Your task to perform on an android device: set default search engine in the chrome app Image 0: 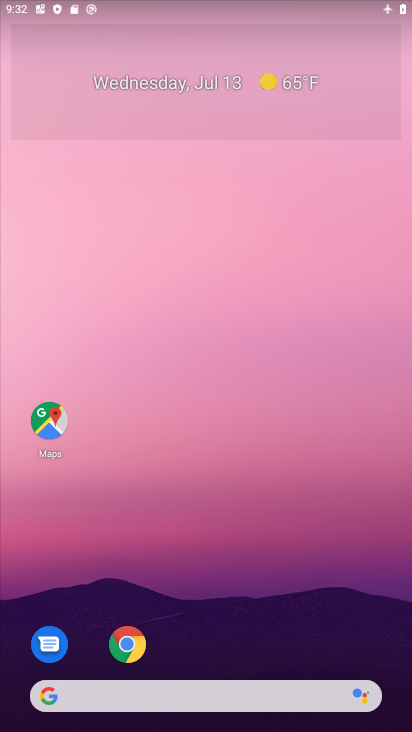
Step 0: drag from (292, 585) to (182, 142)
Your task to perform on an android device: set default search engine in the chrome app Image 1: 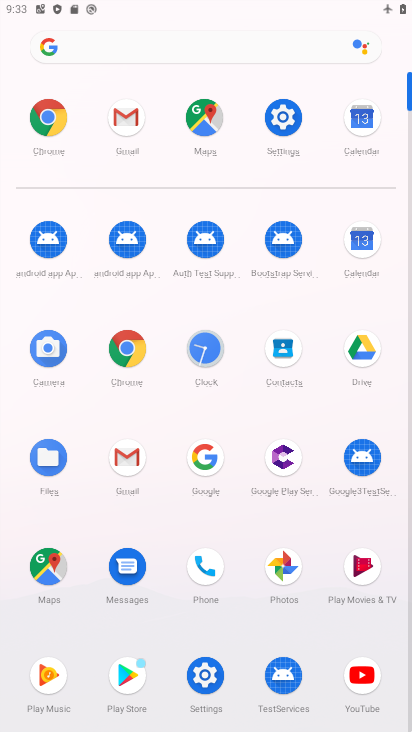
Step 1: click (63, 122)
Your task to perform on an android device: set default search engine in the chrome app Image 2: 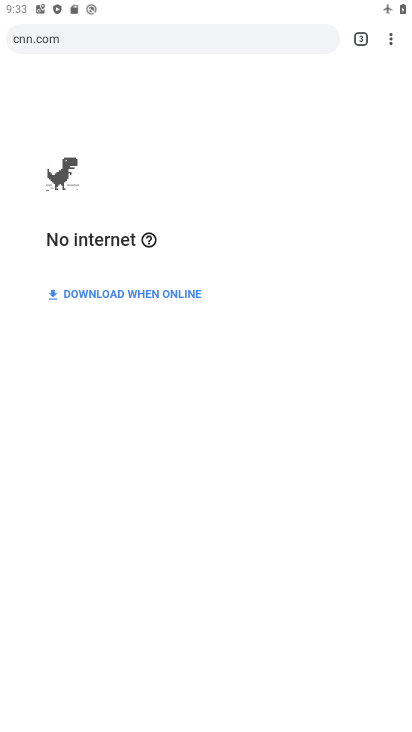
Step 2: task complete